Your task to perform on an android device: Go to Google Image 0: 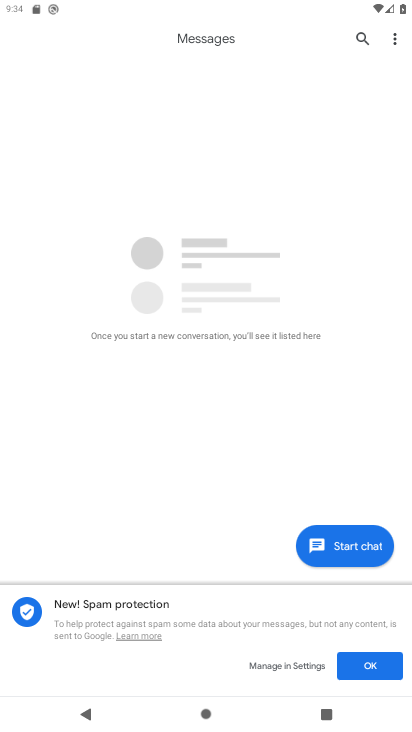
Step 0: press home button
Your task to perform on an android device: Go to Google Image 1: 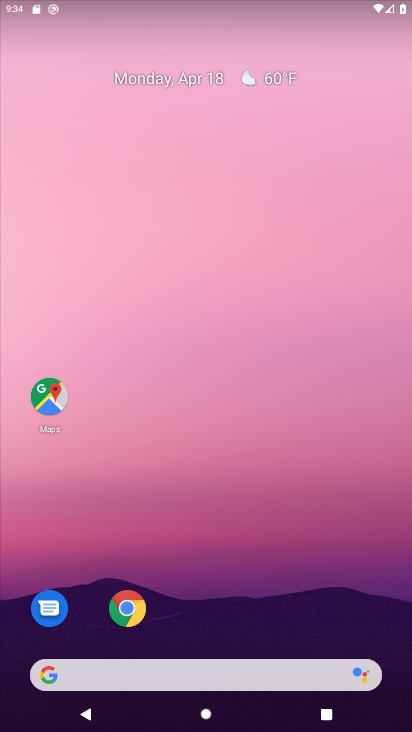
Step 1: drag from (292, 623) to (307, 220)
Your task to perform on an android device: Go to Google Image 2: 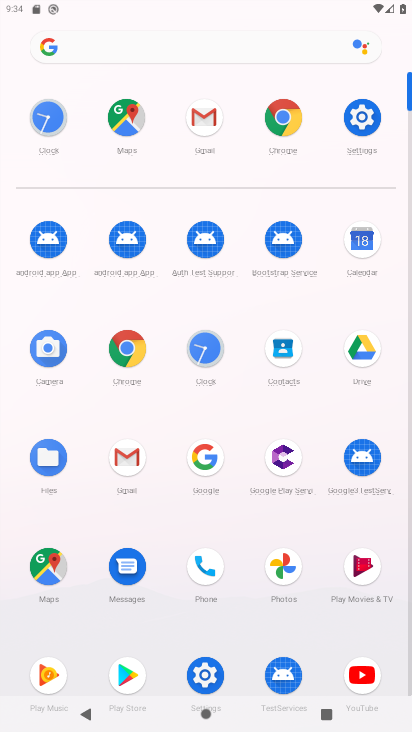
Step 2: click (210, 471)
Your task to perform on an android device: Go to Google Image 3: 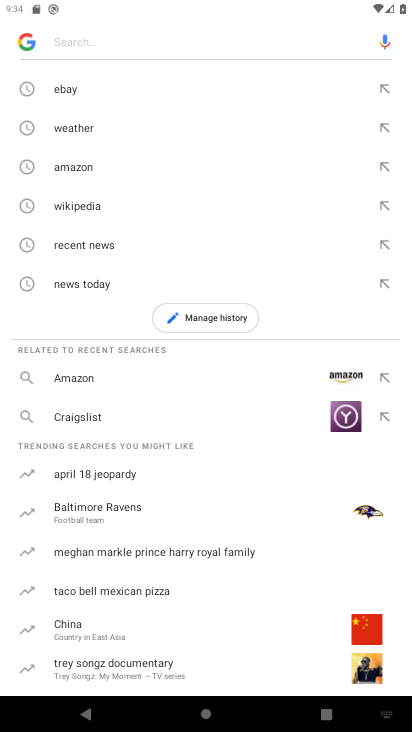
Step 3: task complete